Your task to perform on an android device: Show me the alarms in the clock app Image 0: 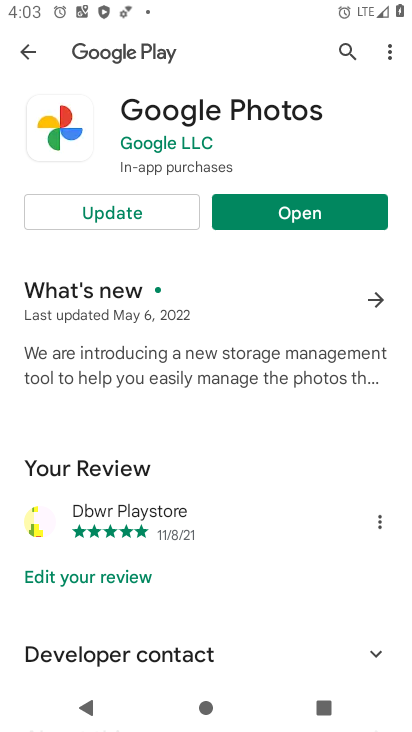
Step 0: press home button
Your task to perform on an android device: Show me the alarms in the clock app Image 1: 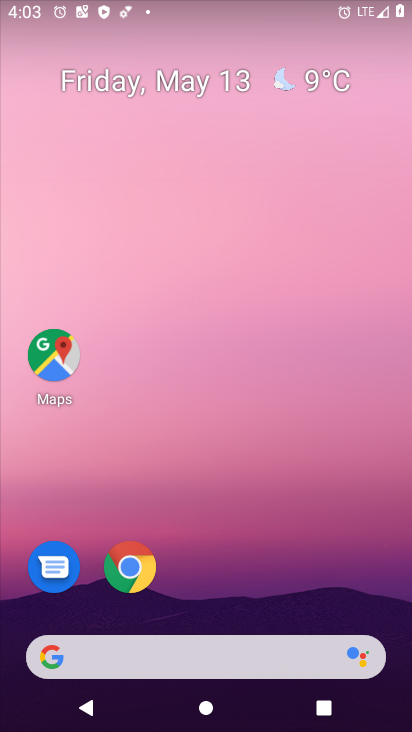
Step 1: drag from (252, 599) to (236, 4)
Your task to perform on an android device: Show me the alarms in the clock app Image 2: 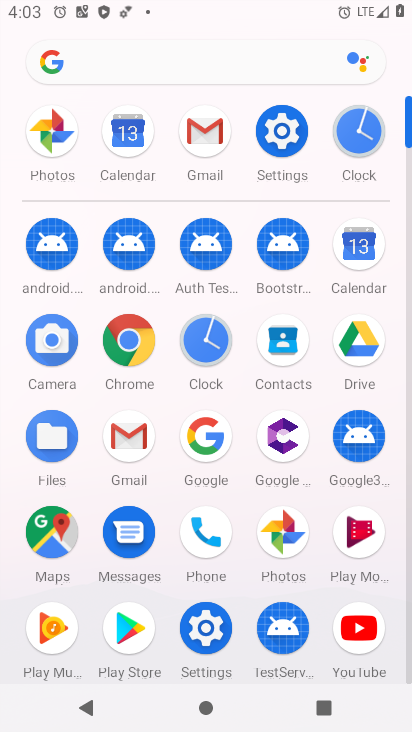
Step 2: click (354, 131)
Your task to perform on an android device: Show me the alarms in the clock app Image 3: 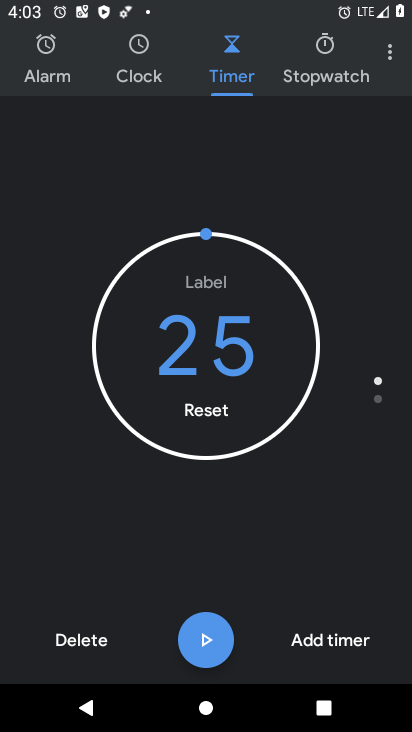
Step 3: click (53, 69)
Your task to perform on an android device: Show me the alarms in the clock app Image 4: 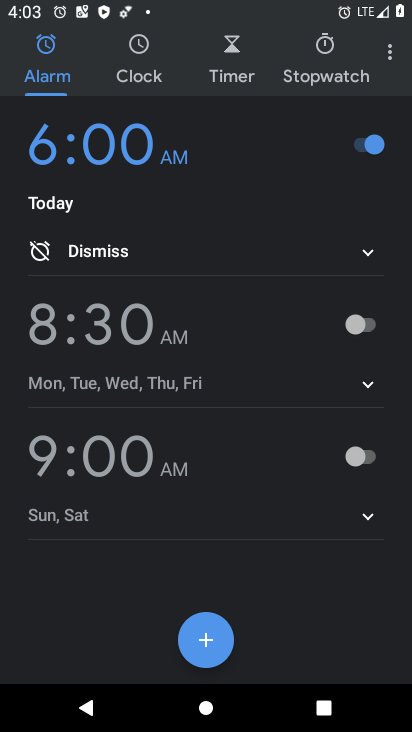
Step 4: task complete